Your task to perform on an android device: turn off data saver in the chrome app Image 0: 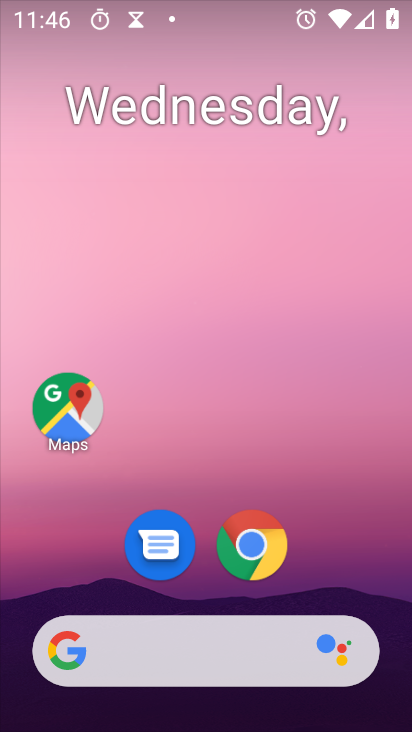
Step 0: press home button
Your task to perform on an android device: turn off data saver in the chrome app Image 1: 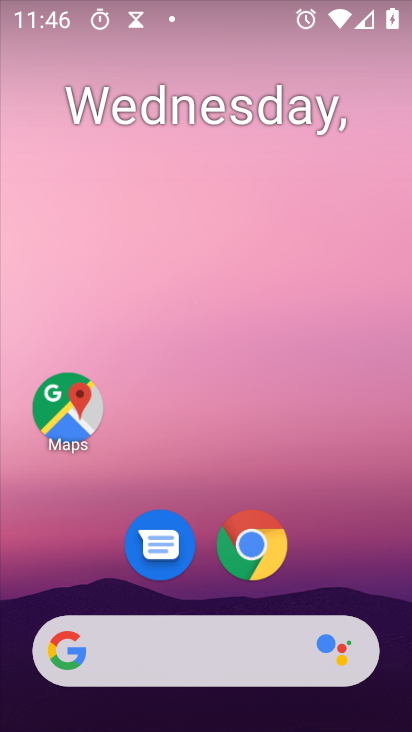
Step 1: click (273, 548)
Your task to perform on an android device: turn off data saver in the chrome app Image 2: 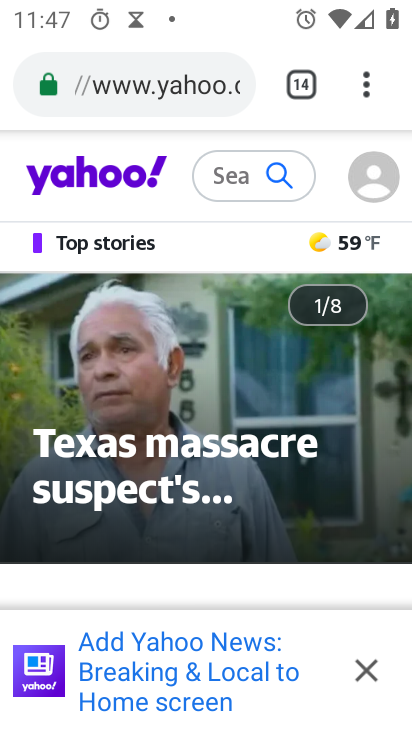
Step 2: drag from (368, 80) to (148, 592)
Your task to perform on an android device: turn off data saver in the chrome app Image 3: 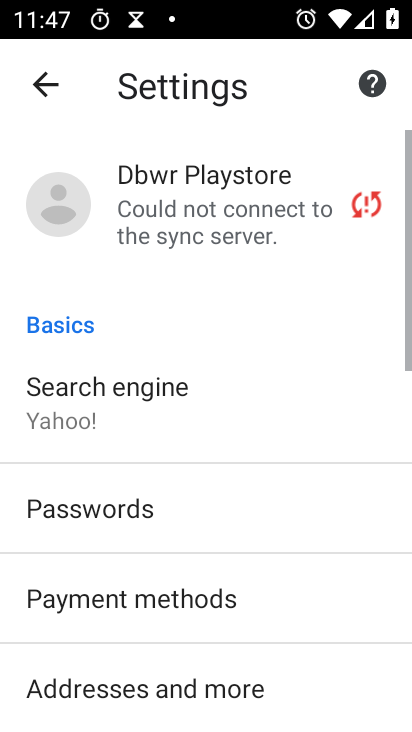
Step 3: drag from (148, 662) to (361, 55)
Your task to perform on an android device: turn off data saver in the chrome app Image 4: 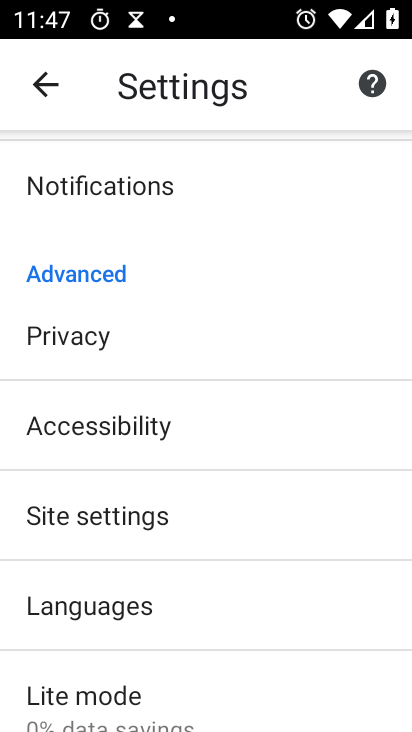
Step 4: drag from (193, 671) to (282, 389)
Your task to perform on an android device: turn off data saver in the chrome app Image 5: 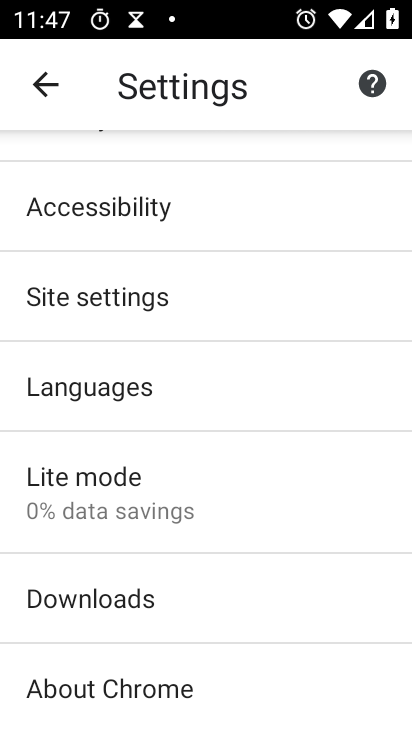
Step 5: click (128, 509)
Your task to perform on an android device: turn off data saver in the chrome app Image 6: 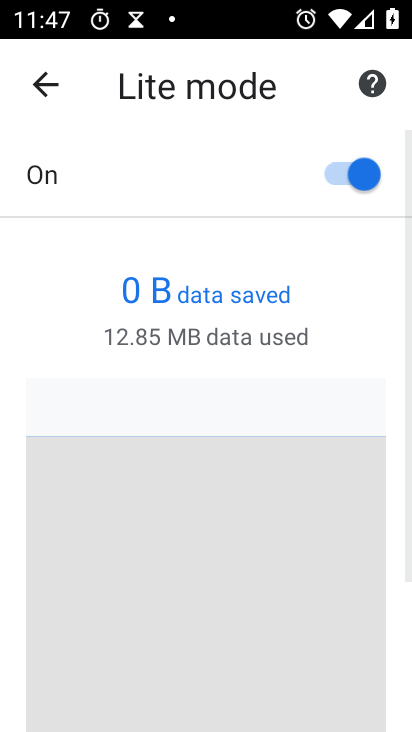
Step 6: click (333, 173)
Your task to perform on an android device: turn off data saver in the chrome app Image 7: 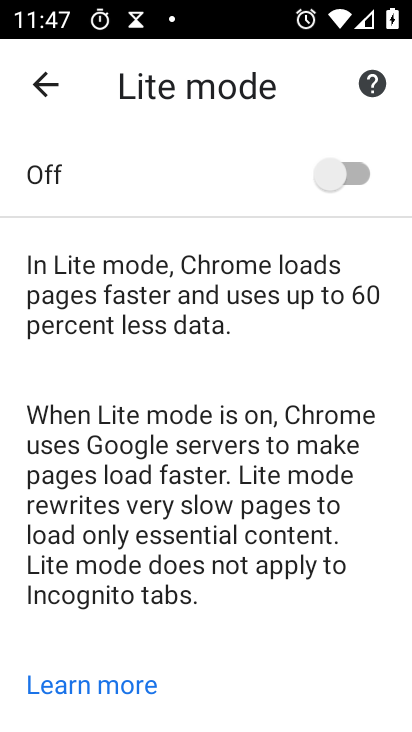
Step 7: task complete